Your task to perform on an android device: check out phone information Image 0: 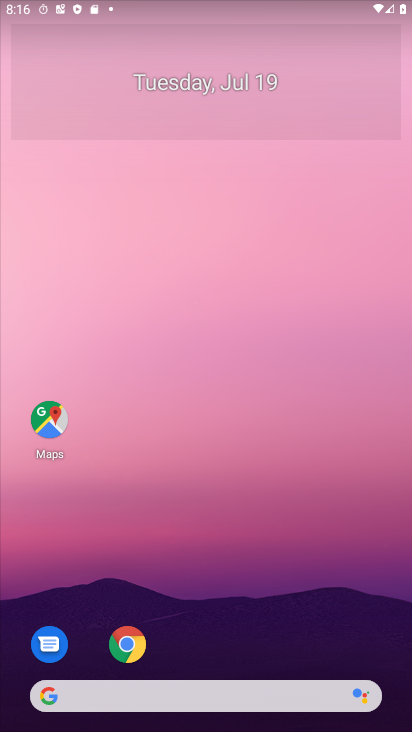
Step 0: drag from (30, 709) to (257, 90)
Your task to perform on an android device: check out phone information Image 1: 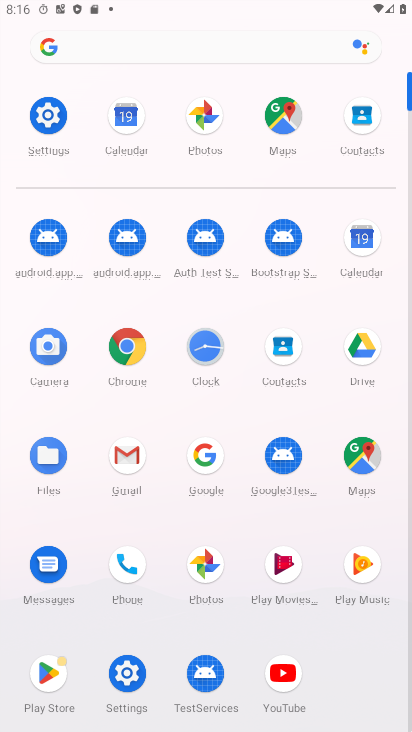
Step 1: click (371, 120)
Your task to perform on an android device: check out phone information Image 2: 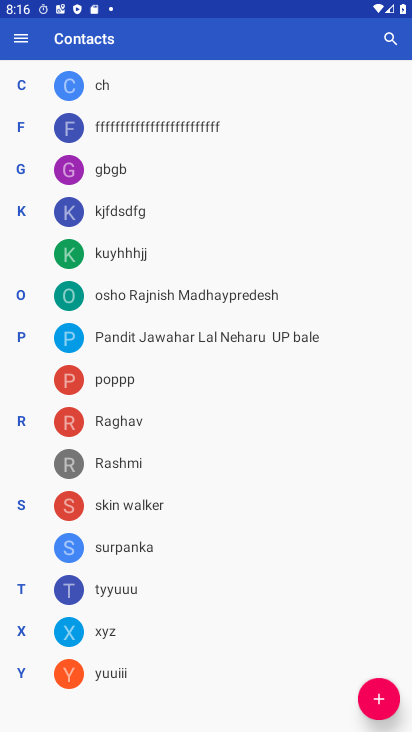
Step 2: task complete